Your task to perform on an android device: turn off translation in the chrome app Image 0: 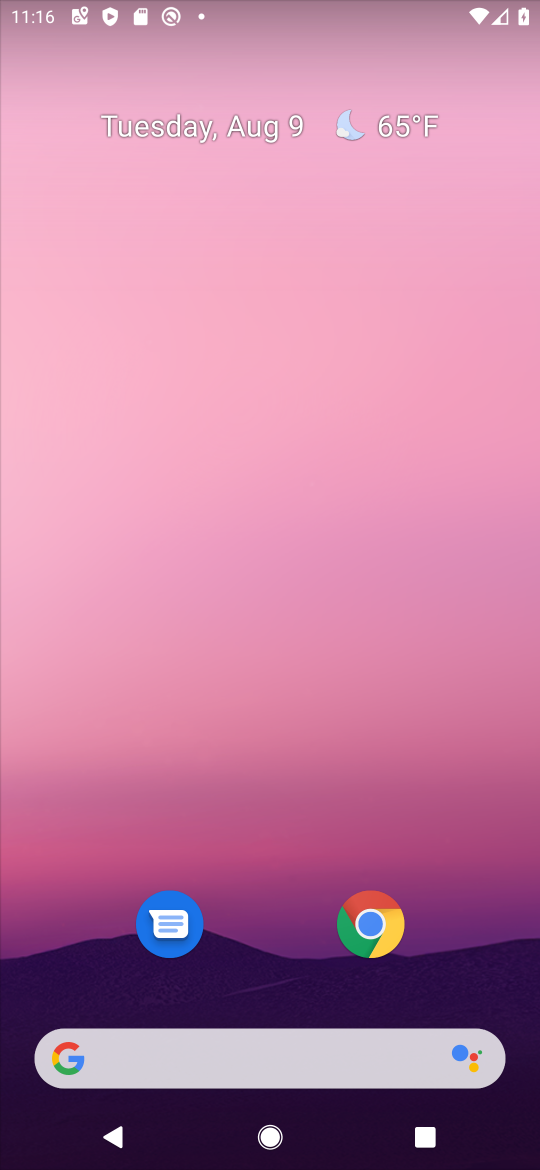
Step 0: drag from (301, 933) to (305, 6)
Your task to perform on an android device: turn off translation in the chrome app Image 1: 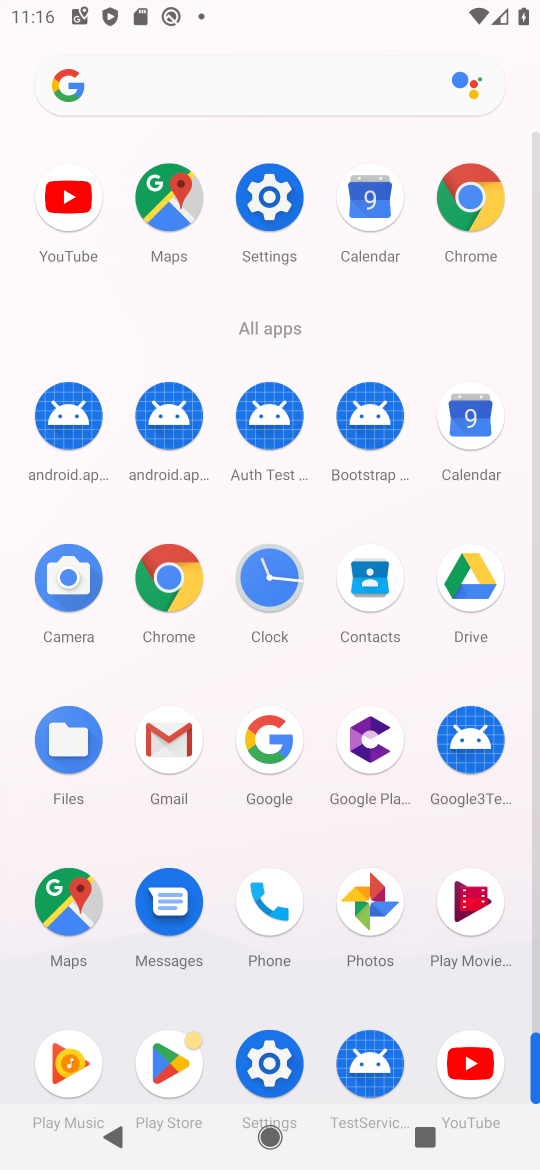
Step 1: click (181, 576)
Your task to perform on an android device: turn off translation in the chrome app Image 2: 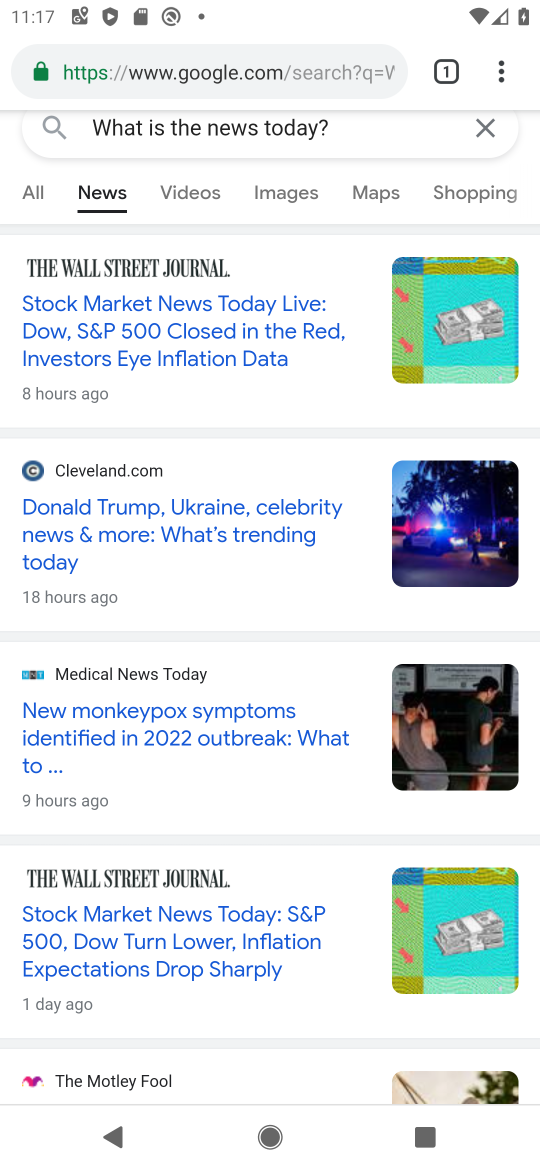
Step 2: drag from (492, 67) to (259, 804)
Your task to perform on an android device: turn off translation in the chrome app Image 3: 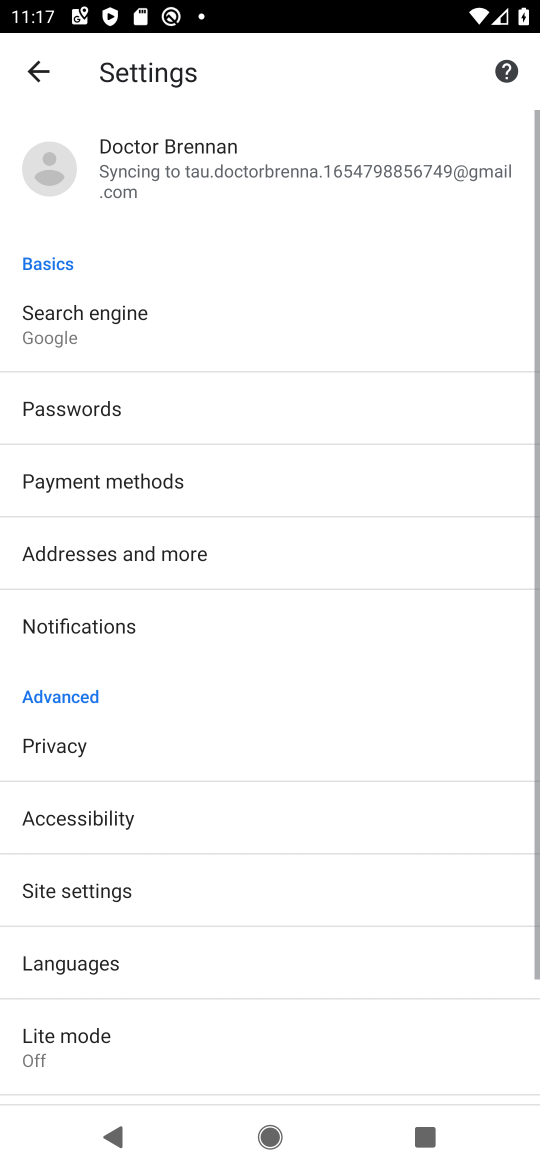
Step 3: drag from (159, 985) to (193, 400)
Your task to perform on an android device: turn off translation in the chrome app Image 4: 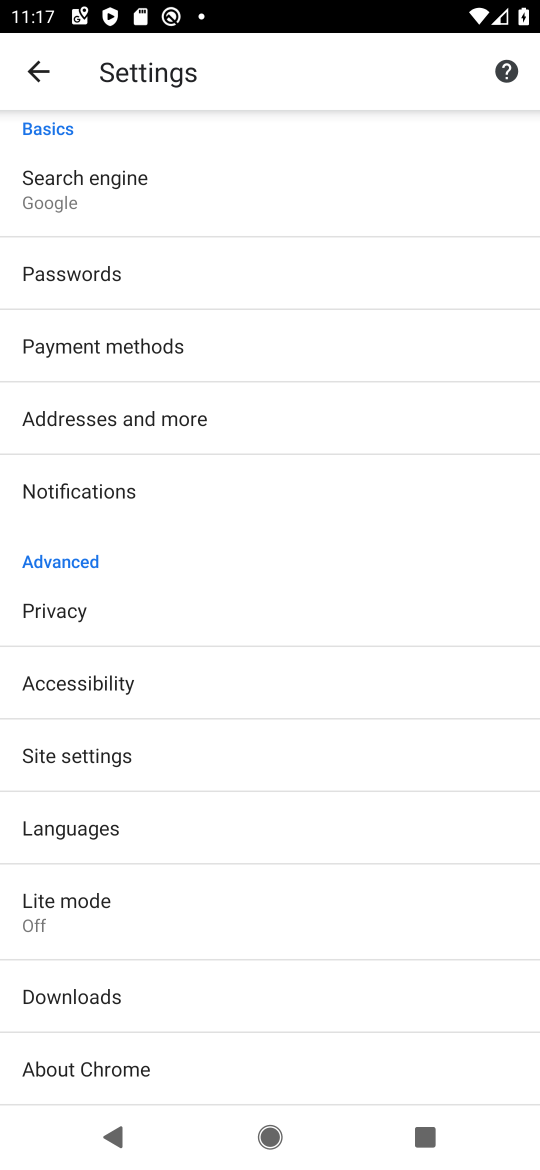
Step 4: click (93, 821)
Your task to perform on an android device: turn off translation in the chrome app Image 5: 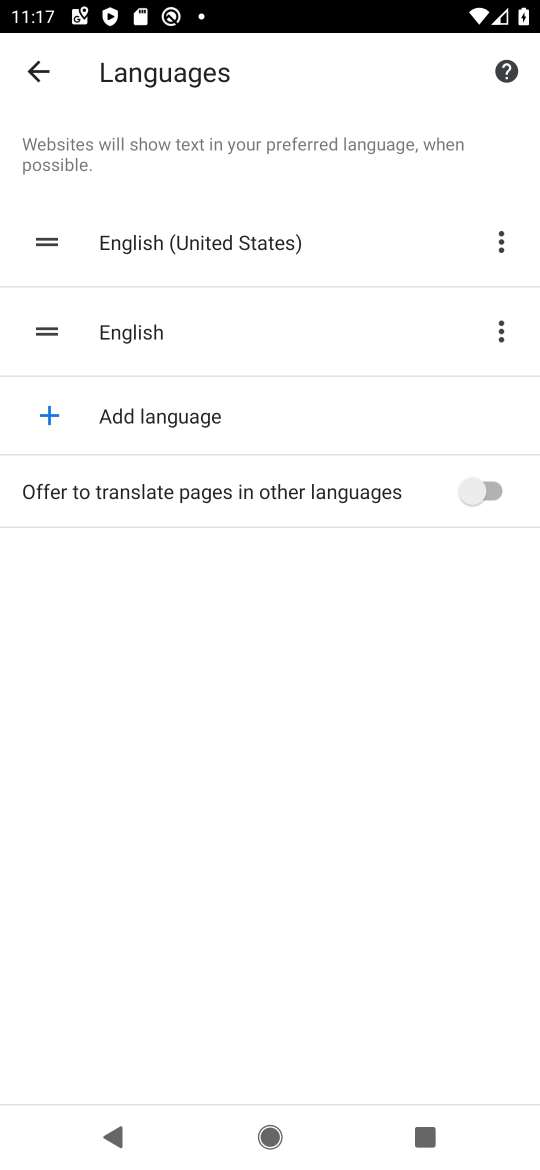
Step 5: task complete